Your task to perform on an android device: find snoozed emails in the gmail app Image 0: 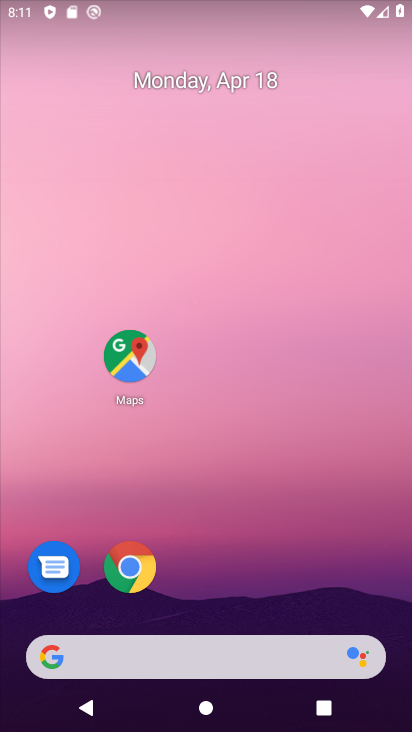
Step 0: click (205, 227)
Your task to perform on an android device: find snoozed emails in the gmail app Image 1: 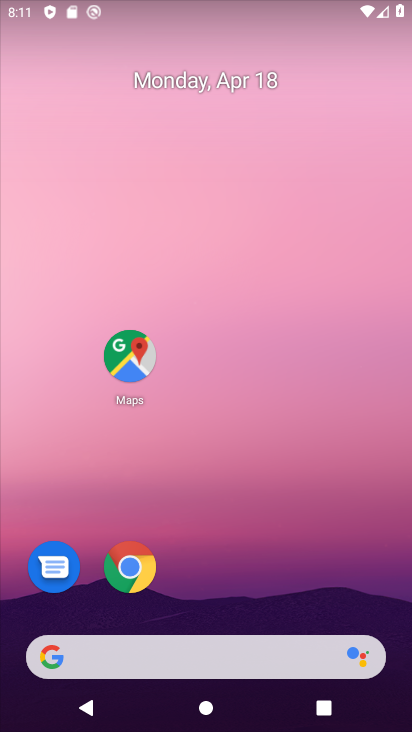
Step 1: click (242, 296)
Your task to perform on an android device: find snoozed emails in the gmail app Image 2: 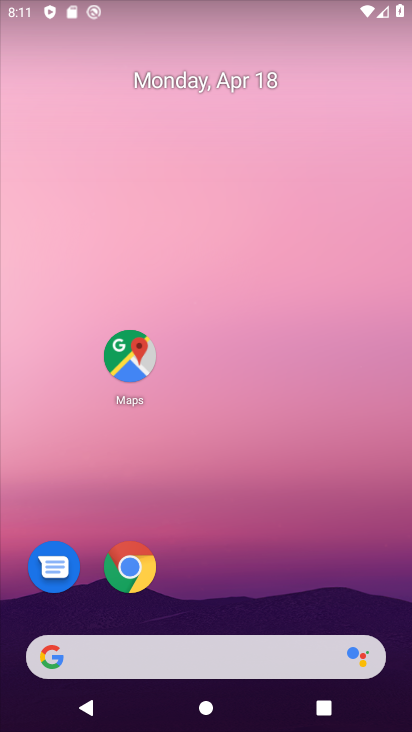
Step 2: drag from (238, 660) to (411, 83)
Your task to perform on an android device: find snoozed emails in the gmail app Image 3: 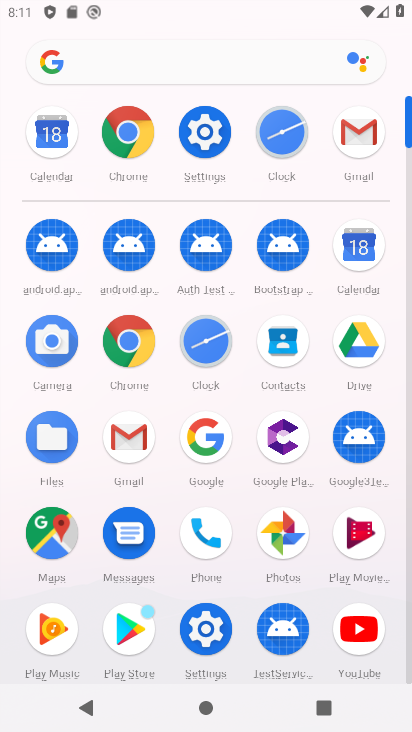
Step 3: click (129, 424)
Your task to perform on an android device: find snoozed emails in the gmail app Image 4: 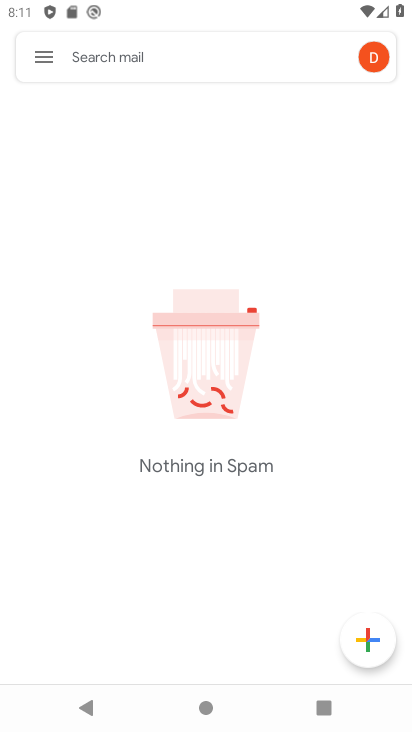
Step 4: click (44, 51)
Your task to perform on an android device: find snoozed emails in the gmail app Image 5: 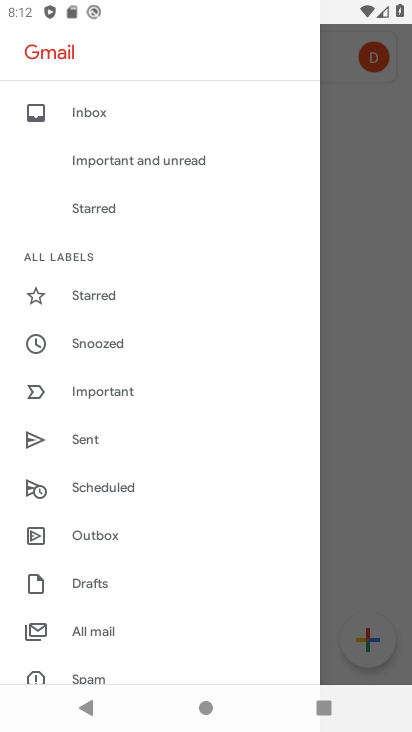
Step 5: click (88, 344)
Your task to perform on an android device: find snoozed emails in the gmail app Image 6: 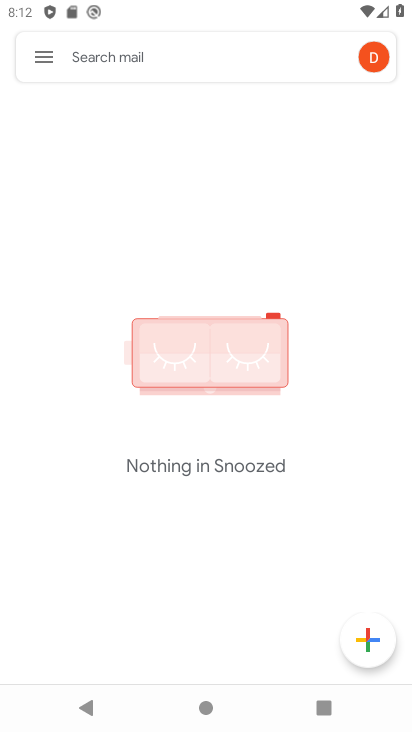
Step 6: task complete